Your task to perform on an android device: turn on showing notifications on the lock screen Image 0: 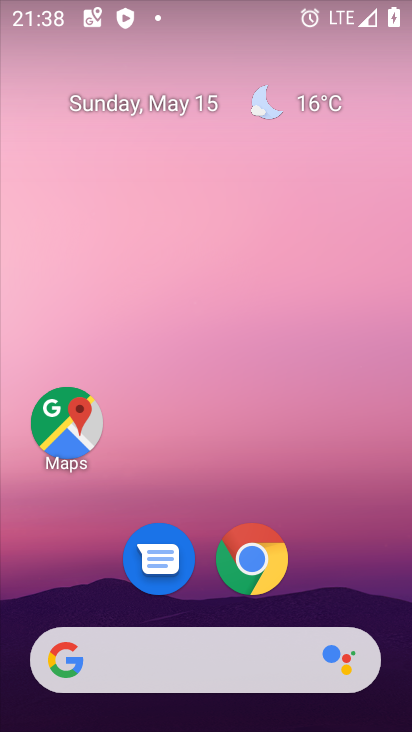
Step 0: drag from (236, 457) to (133, 78)
Your task to perform on an android device: turn on showing notifications on the lock screen Image 1: 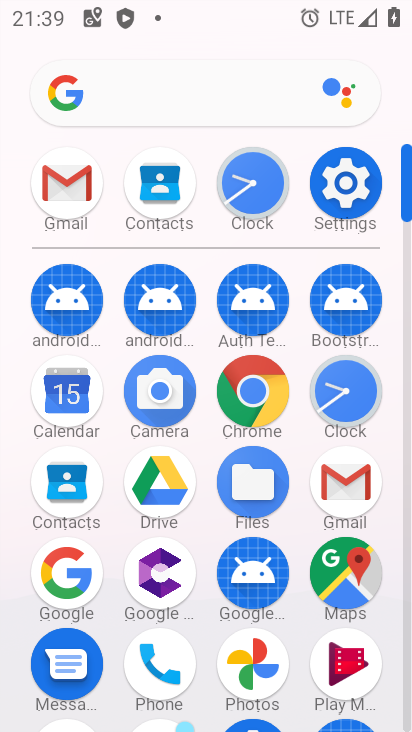
Step 1: click (346, 192)
Your task to perform on an android device: turn on showing notifications on the lock screen Image 2: 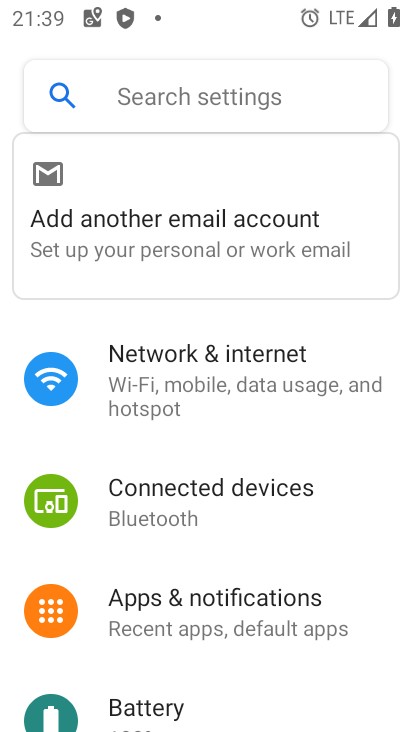
Step 2: click (231, 610)
Your task to perform on an android device: turn on showing notifications on the lock screen Image 3: 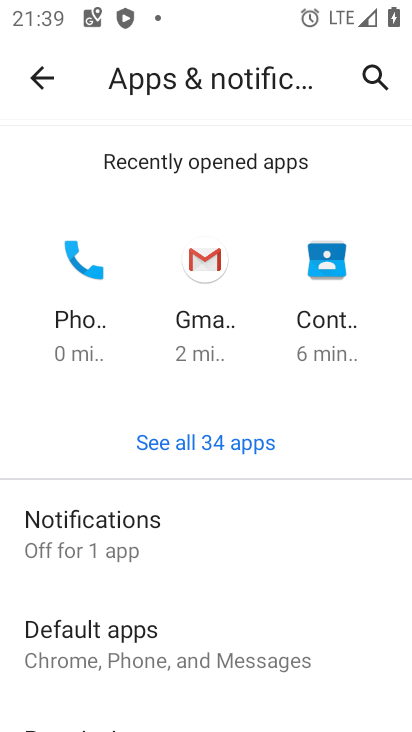
Step 3: drag from (241, 529) to (165, 346)
Your task to perform on an android device: turn on showing notifications on the lock screen Image 4: 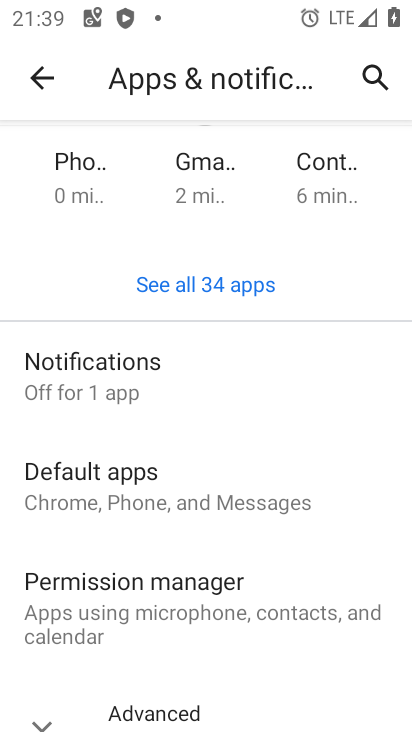
Step 4: click (97, 365)
Your task to perform on an android device: turn on showing notifications on the lock screen Image 5: 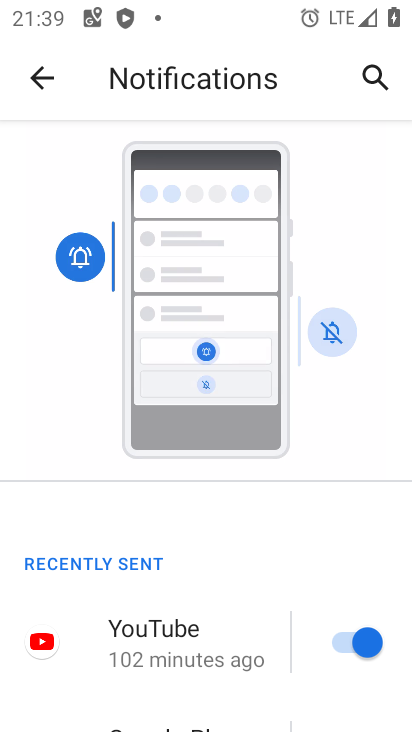
Step 5: drag from (270, 589) to (154, 229)
Your task to perform on an android device: turn on showing notifications on the lock screen Image 6: 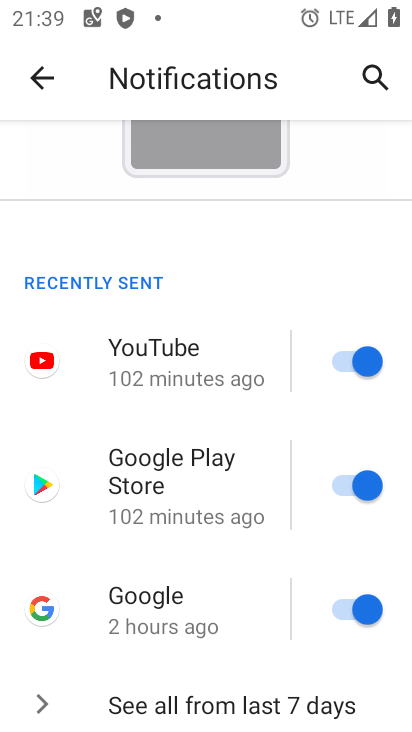
Step 6: drag from (246, 564) to (215, 142)
Your task to perform on an android device: turn on showing notifications on the lock screen Image 7: 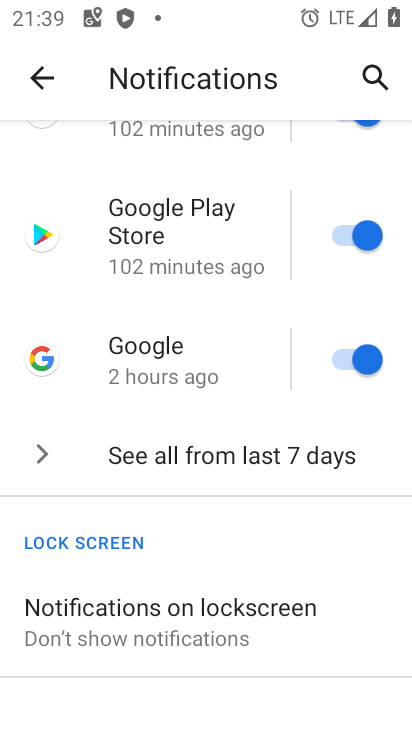
Step 7: click (200, 606)
Your task to perform on an android device: turn on showing notifications on the lock screen Image 8: 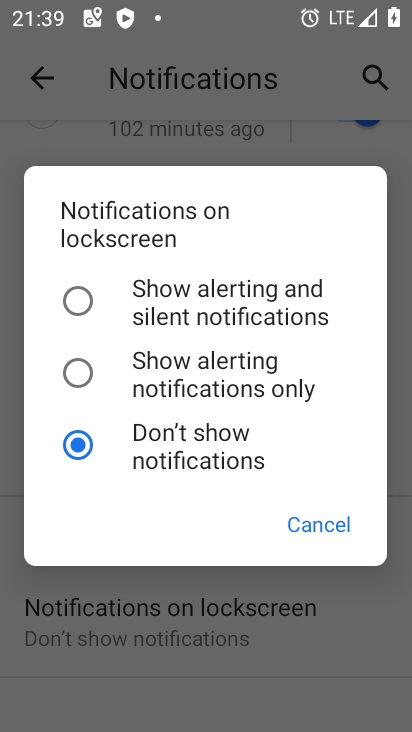
Step 8: click (74, 299)
Your task to perform on an android device: turn on showing notifications on the lock screen Image 9: 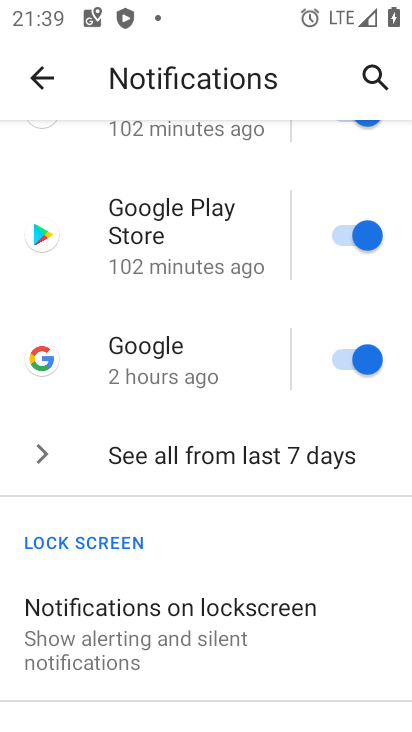
Step 9: task complete